Your task to perform on an android device: Open Reddit.com Image 0: 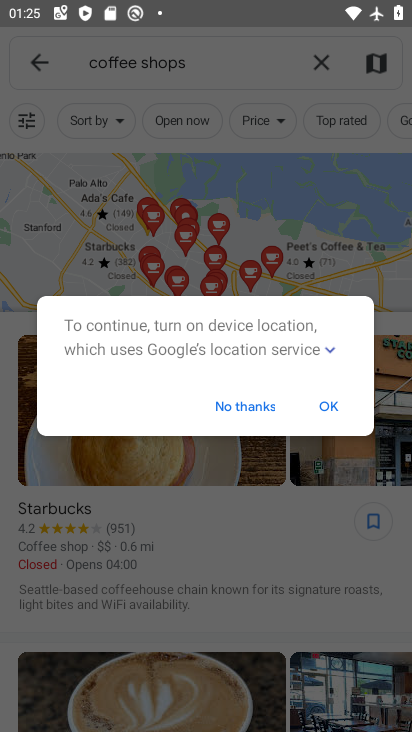
Step 0: press home button
Your task to perform on an android device: Open Reddit.com Image 1: 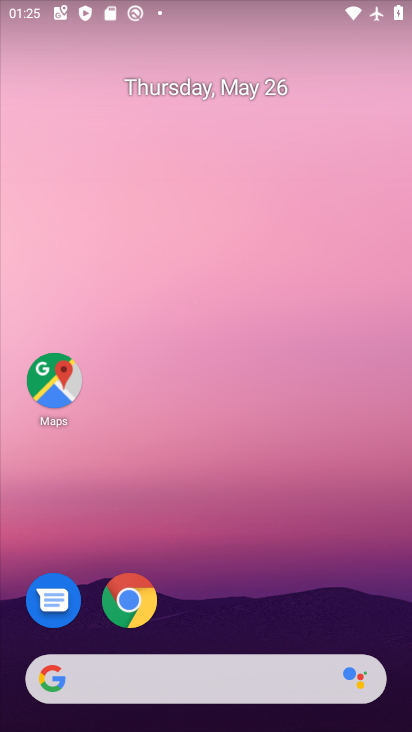
Step 1: drag from (254, 572) to (240, 68)
Your task to perform on an android device: Open Reddit.com Image 2: 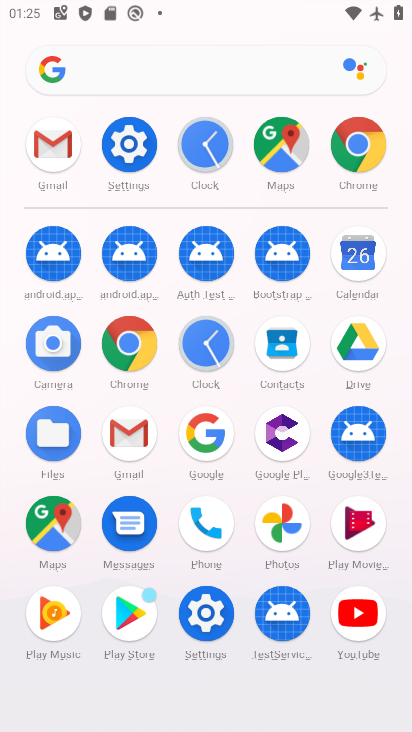
Step 2: click (124, 336)
Your task to perform on an android device: Open Reddit.com Image 3: 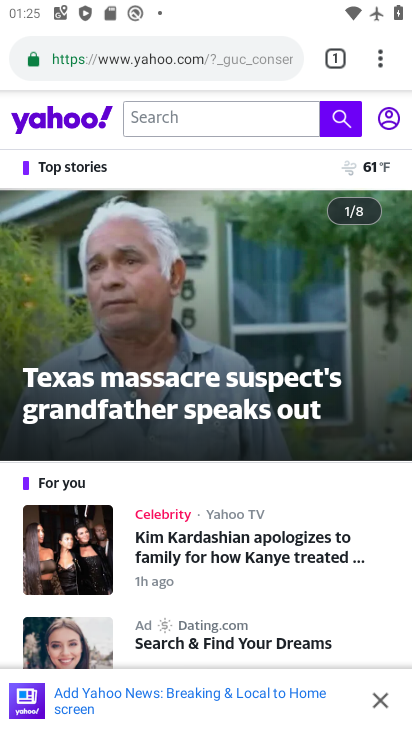
Step 3: click (180, 60)
Your task to perform on an android device: Open Reddit.com Image 4: 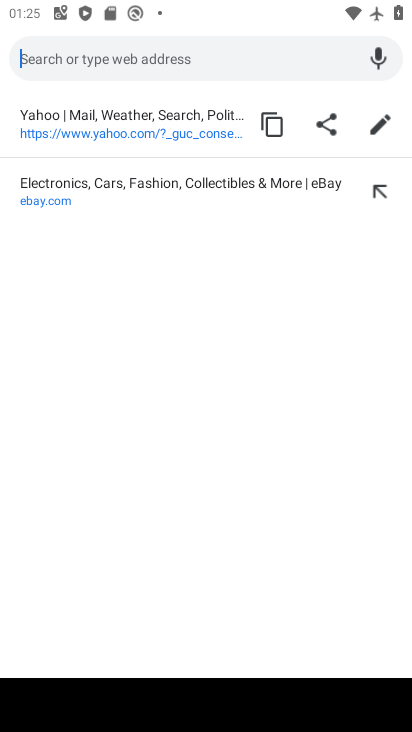
Step 4: type "reddit.com"
Your task to perform on an android device: Open Reddit.com Image 5: 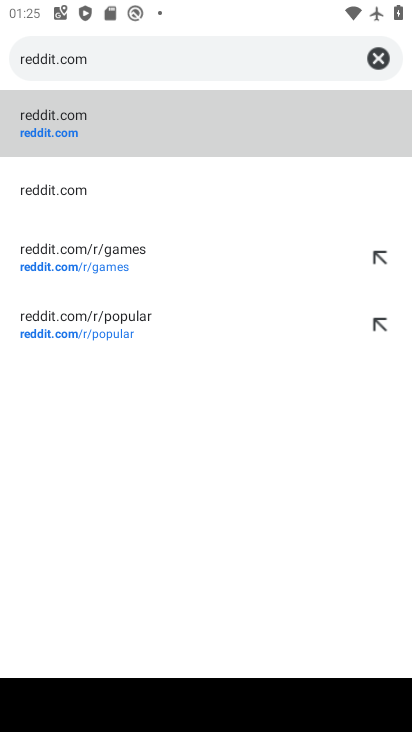
Step 5: click (56, 136)
Your task to perform on an android device: Open Reddit.com Image 6: 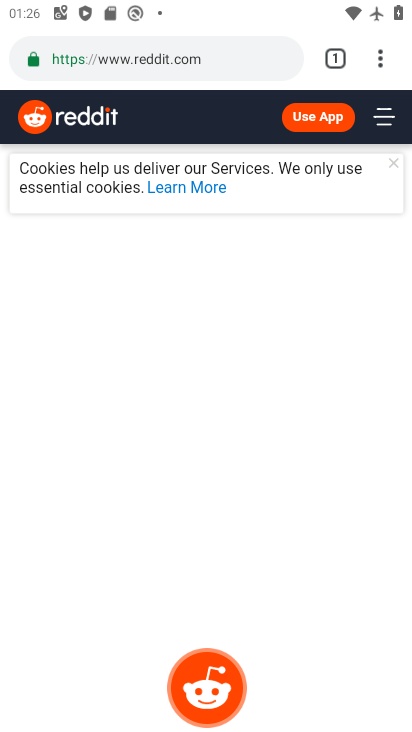
Step 6: task complete